Your task to perform on an android device: turn on the 12-hour format for clock Image 0: 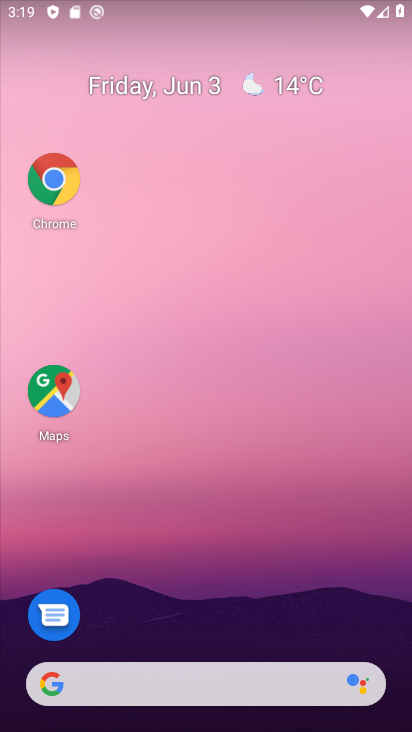
Step 0: drag from (124, 729) to (179, 150)
Your task to perform on an android device: turn on the 12-hour format for clock Image 1: 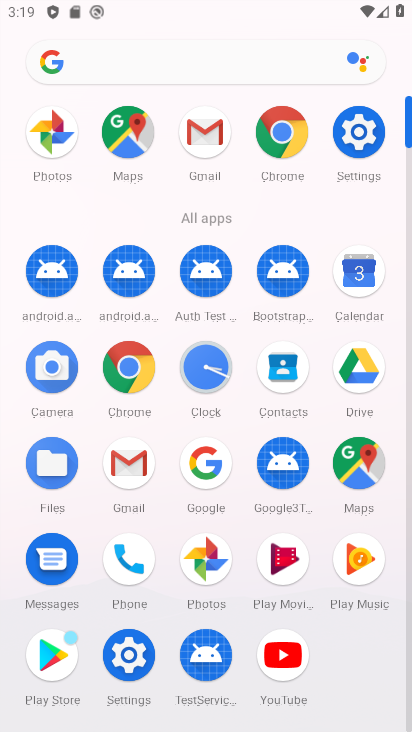
Step 1: click (122, 665)
Your task to perform on an android device: turn on the 12-hour format for clock Image 2: 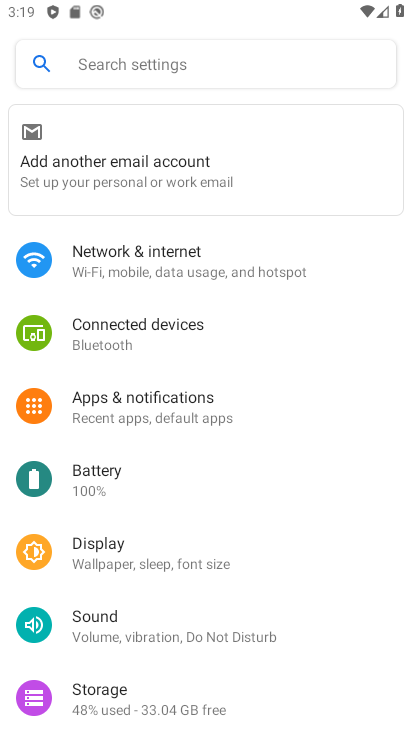
Step 2: drag from (218, 679) to (231, 203)
Your task to perform on an android device: turn on the 12-hour format for clock Image 3: 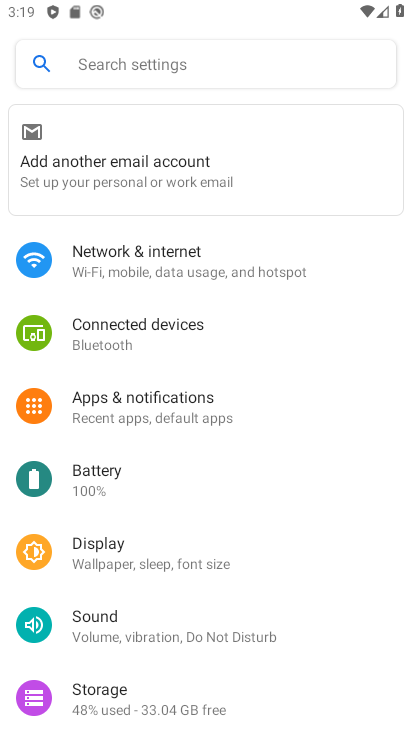
Step 3: drag from (295, 668) to (273, 280)
Your task to perform on an android device: turn on the 12-hour format for clock Image 4: 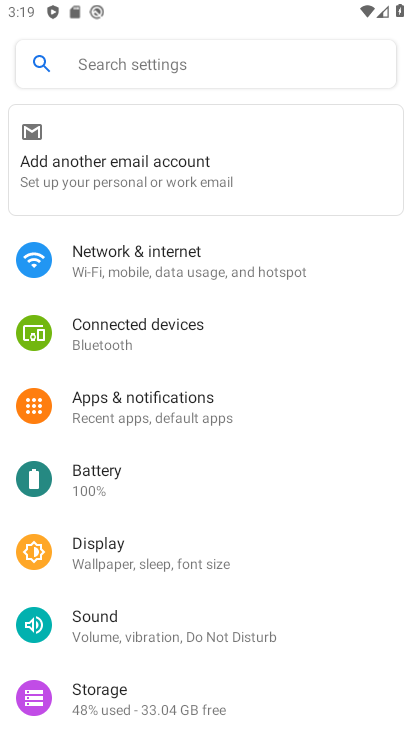
Step 4: drag from (329, 668) to (357, 153)
Your task to perform on an android device: turn on the 12-hour format for clock Image 5: 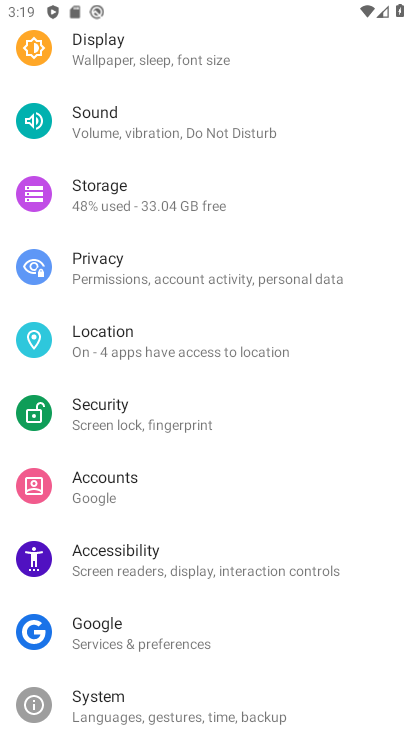
Step 5: click (223, 714)
Your task to perform on an android device: turn on the 12-hour format for clock Image 6: 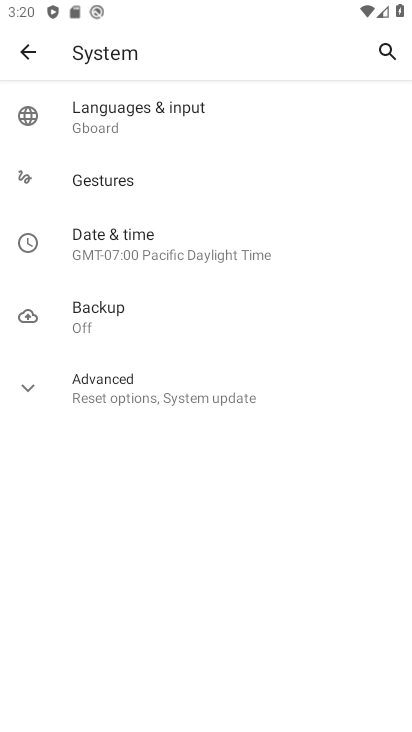
Step 6: click (112, 260)
Your task to perform on an android device: turn on the 12-hour format for clock Image 7: 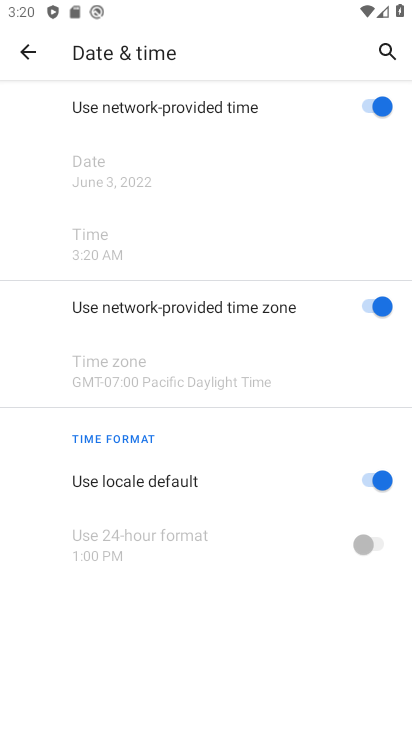
Step 7: task complete